Your task to perform on an android device: make emails show in primary in the gmail app Image 0: 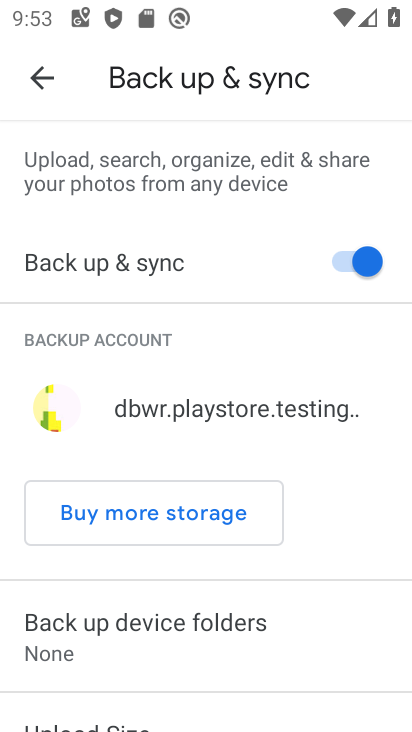
Step 0: press home button
Your task to perform on an android device: make emails show in primary in the gmail app Image 1: 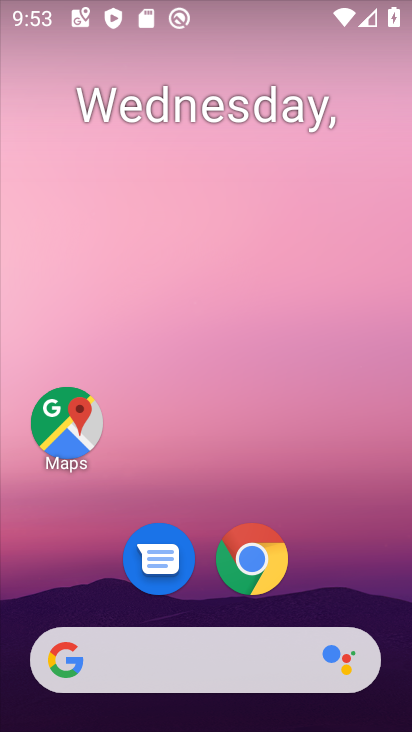
Step 1: drag from (218, 503) to (210, 221)
Your task to perform on an android device: make emails show in primary in the gmail app Image 2: 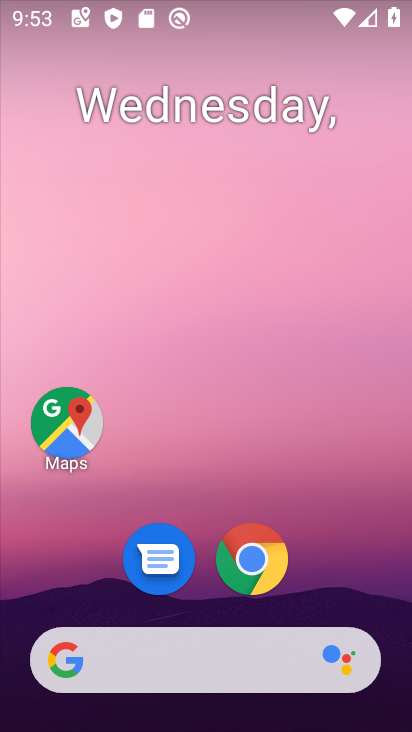
Step 2: drag from (187, 464) to (205, 0)
Your task to perform on an android device: make emails show in primary in the gmail app Image 3: 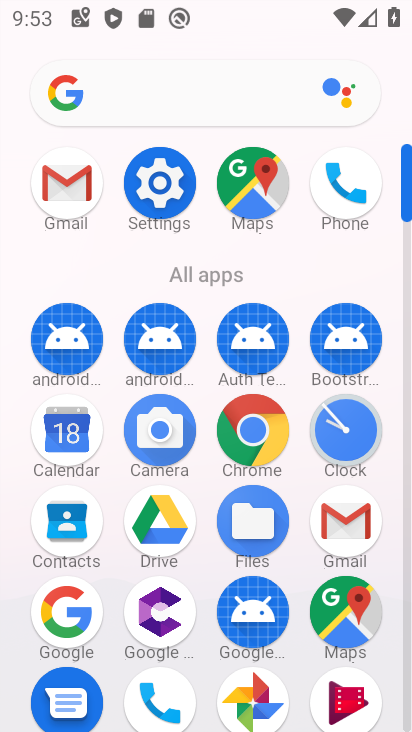
Step 3: click (73, 184)
Your task to perform on an android device: make emails show in primary in the gmail app Image 4: 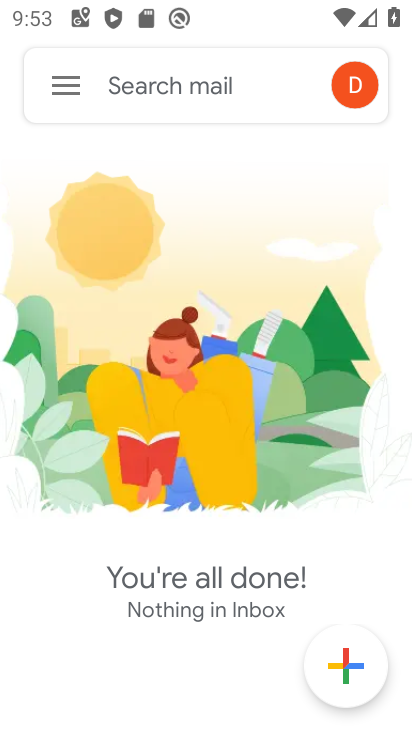
Step 4: click (67, 67)
Your task to perform on an android device: make emails show in primary in the gmail app Image 5: 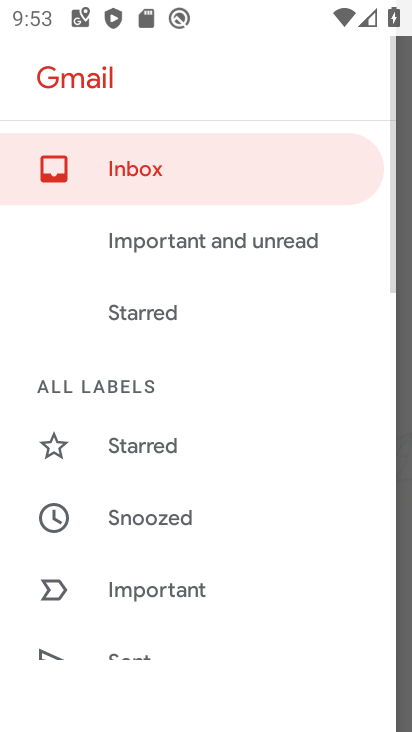
Step 5: drag from (241, 529) to (250, 13)
Your task to perform on an android device: make emails show in primary in the gmail app Image 6: 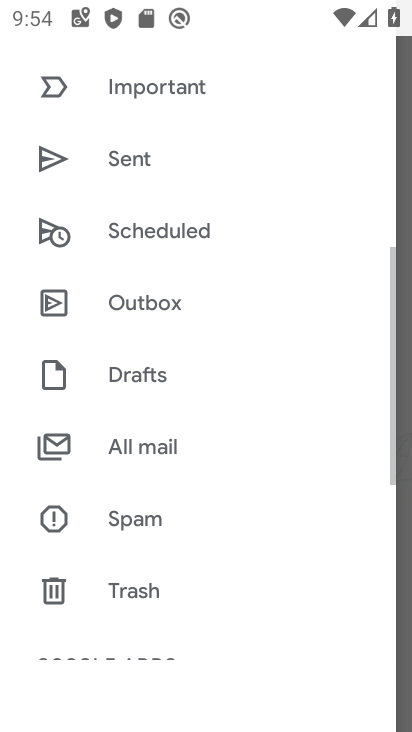
Step 6: drag from (225, 639) to (269, 83)
Your task to perform on an android device: make emails show in primary in the gmail app Image 7: 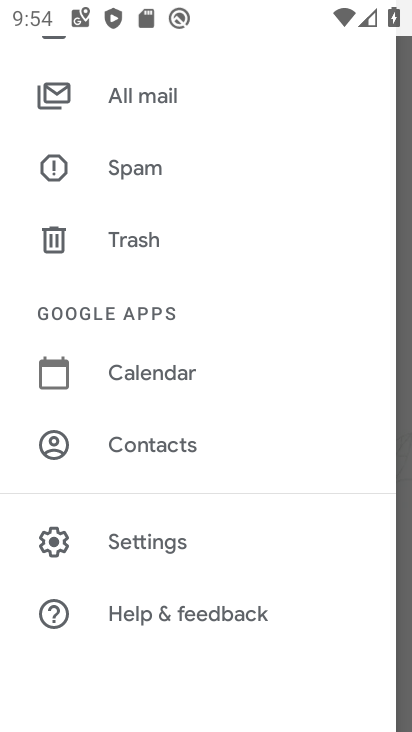
Step 7: click (179, 546)
Your task to perform on an android device: make emails show in primary in the gmail app Image 8: 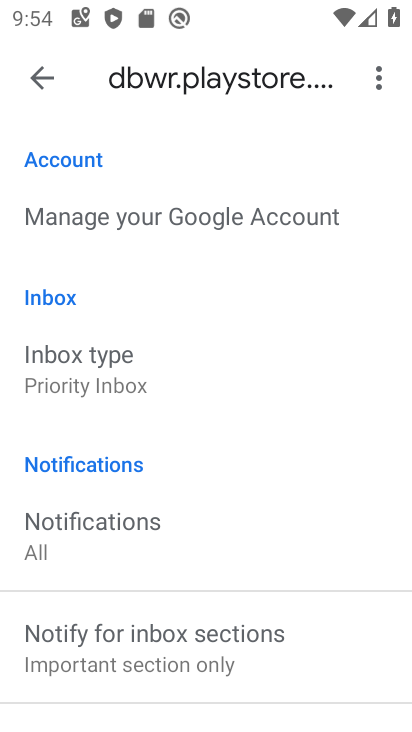
Step 8: click (107, 375)
Your task to perform on an android device: make emails show in primary in the gmail app Image 9: 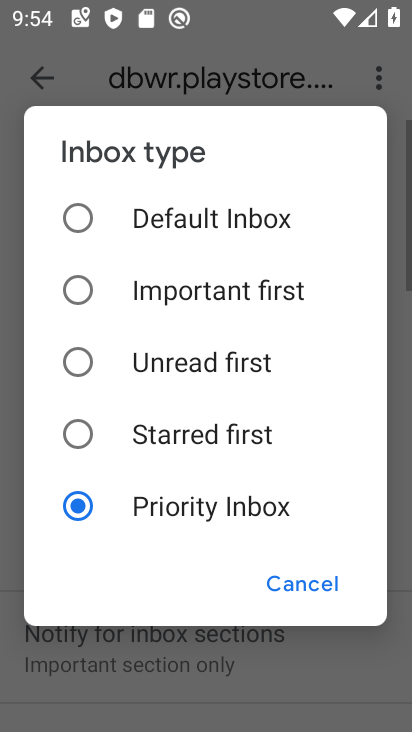
Step 9: click (89, 205)
Your task to perform on an android device: make emails show in primary in the gmail app Image 10: 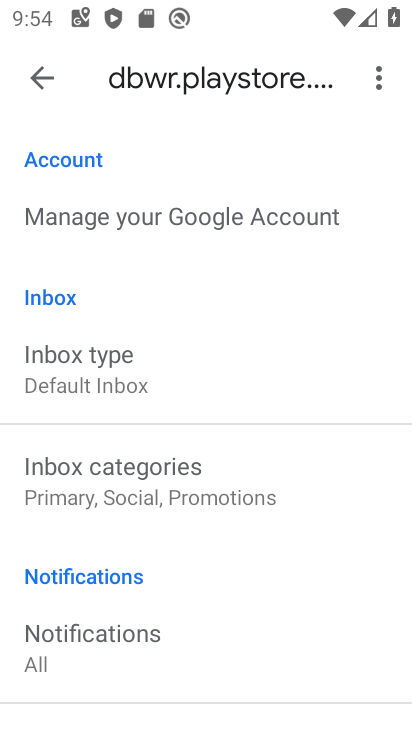
Step 10: click (133, 484)
Your task to perform on an android device: make emails show in primary in the gmail app Image 11: 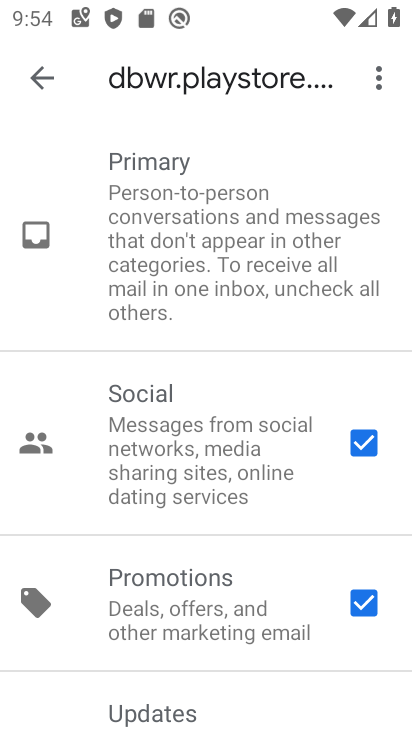
Step 11: click (368, 430)
Your task to perform on an android device: make emails show in primary in the gmail app Image 12: 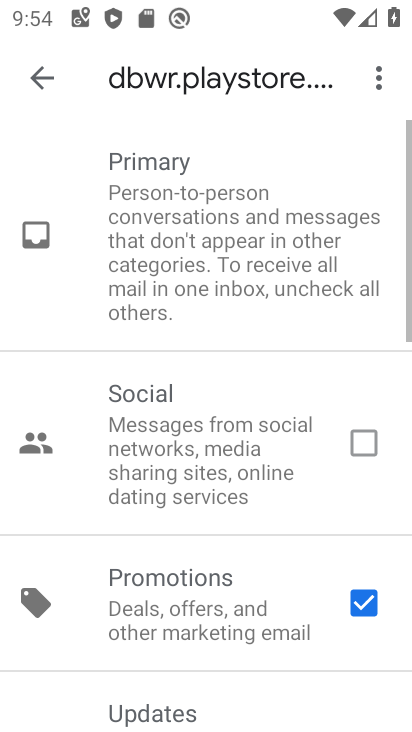
Step 12: click (366, 600)
Your task to perform on an android device: make emails show in primary in the gmail app Image 13: 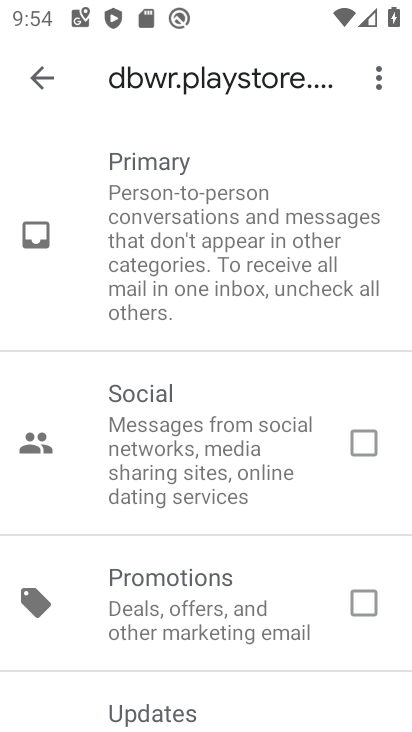
Step 13: click (39, 70)
Your task to perform on an android device: make emails show in primary in the gmail app Image 14: 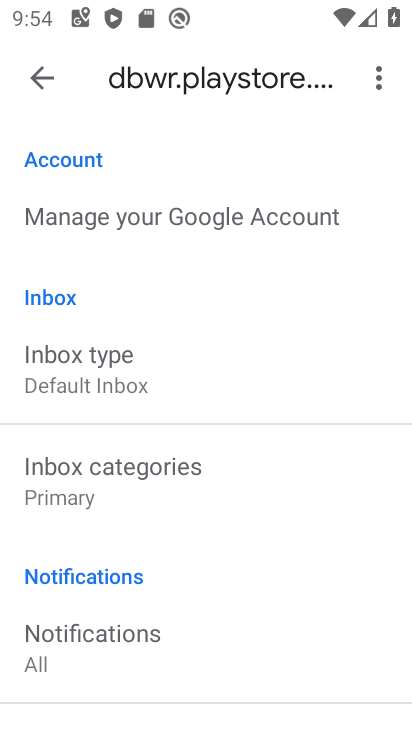
Step 14: task complete